Your task to perform on an android device: Show me productivity apps on the Play Store Image 0: 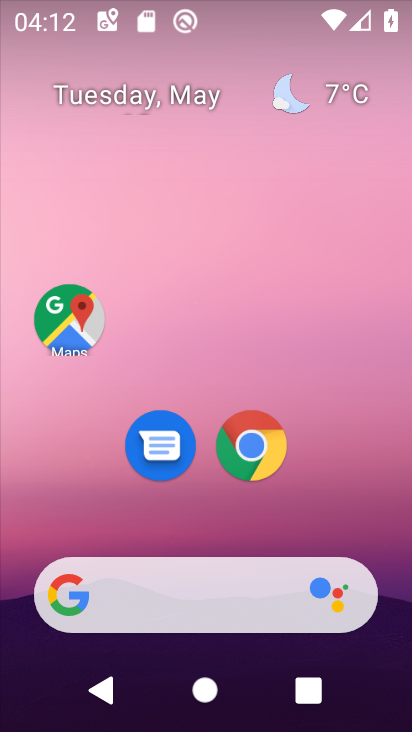
Step 0: drag from (212, 532) to (260, 31)
Your task to perform on an android device: Show me productivity apps on the Play Store Image 1: 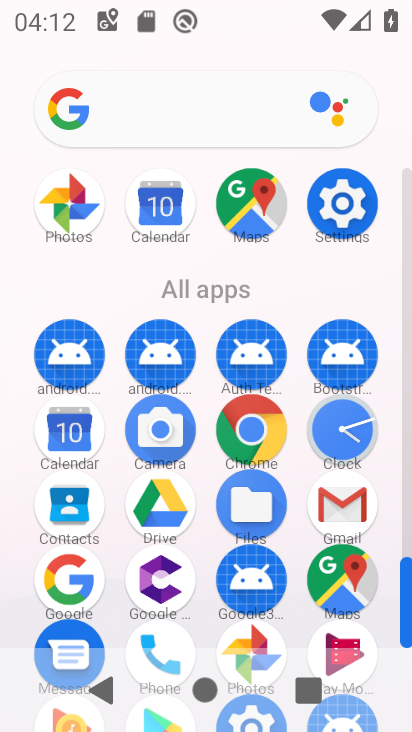
Step 1: drag from (205, 548) to (245, 204)
Your task to perform on an android device: Show me productivity apps on the Play Store Image 2: 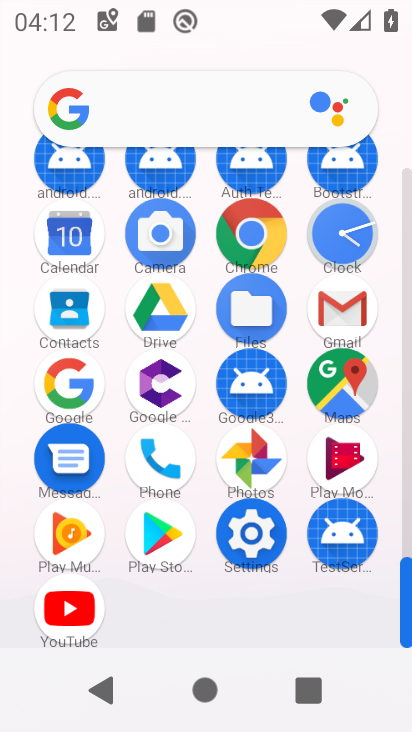
Step 2: click (168, 552)
Your task to perform on an android device: Show me productivity apps on the Play Store Image 3: 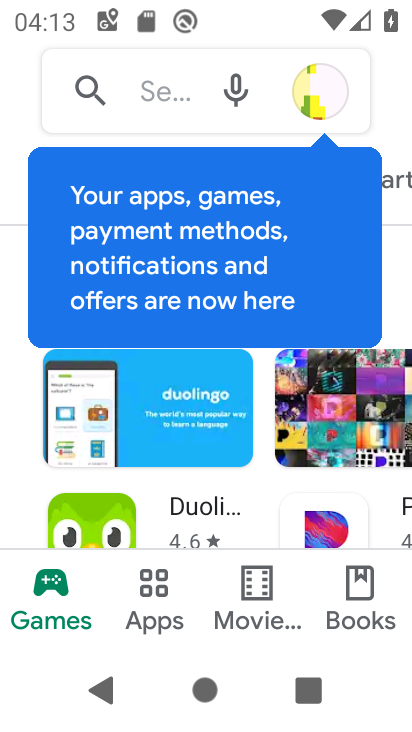
Step 3: click (171, 614)
Your task to perform on an android device: Show me productivity apps on the Play Store Image 4: 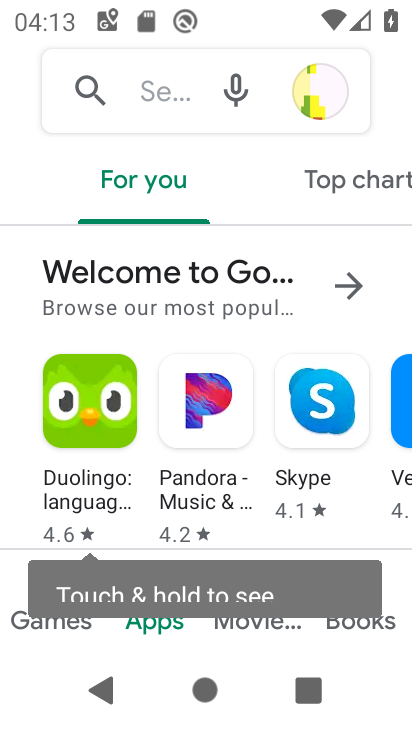
Step 4: drag from (355, 193) to (12, 167)
Your task to perform on an android device: Show me productivity apps on the Play Store Image 5: 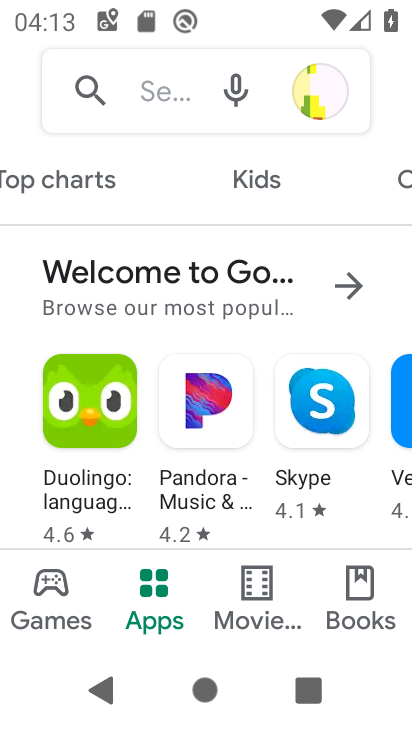
Step 5: drag from (348, 196) to (61, 170)
Your task to perform on an android device: Show me productivity apps on the Play Store Image 6: 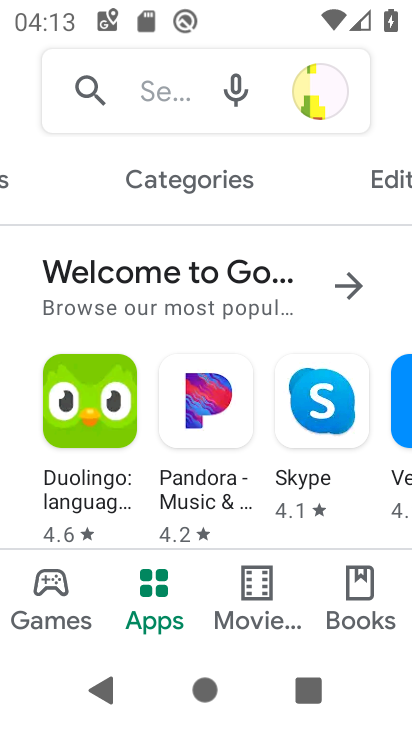
Step 6: click (195, 190)
Your task to perform on an android device: Show me productivity apps on the Play Store Image 7: 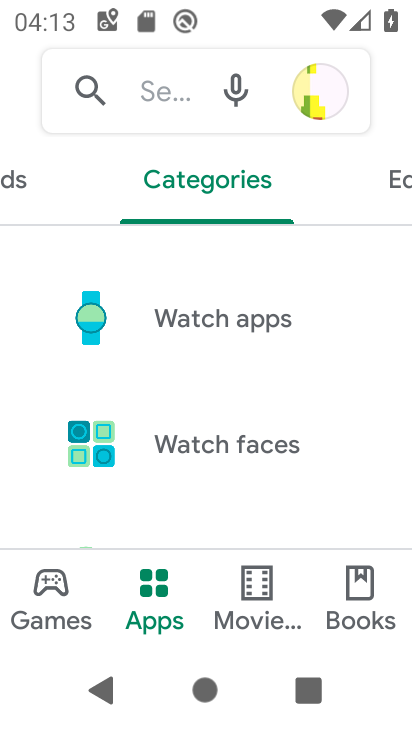
Step 7: drag from (203, 427) to (196, 107)
Your task to perform on an android device: Show me productivity apps on the Play Store Image 8: 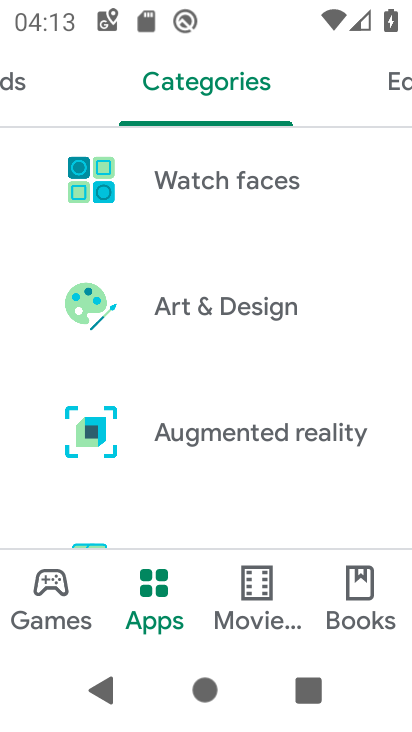
Step 8: drag from (193, 412) to (241, 88)
Your task to perform on an android device: Show me productivity apps on the Play Store Image 9: 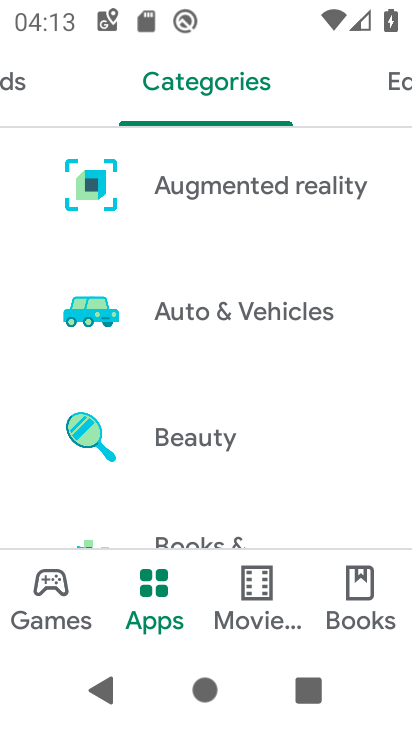
Step 9: drag from (230, 504) to (285, 9)
Your task to perform on an android device: Show me productivity apps on the Play Store Image 10: 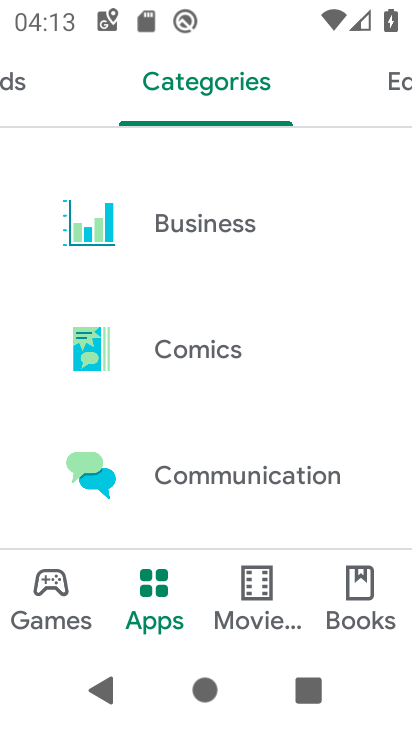
Step 10: drag from (261, 435) to (357, 14)
Your task to perform on an android device: Show me productivity apps on the Play Store Image 11: 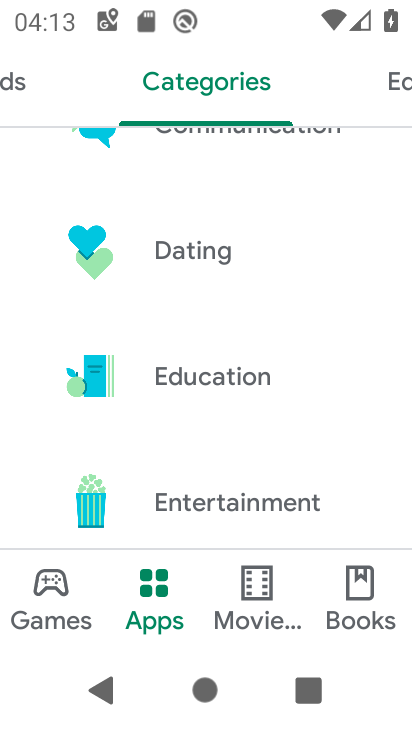
Step 11: drag from (252, 472) to (316, 24)
Your task to perform on an android device: Show me productivity apps on the Play Store Image 12: 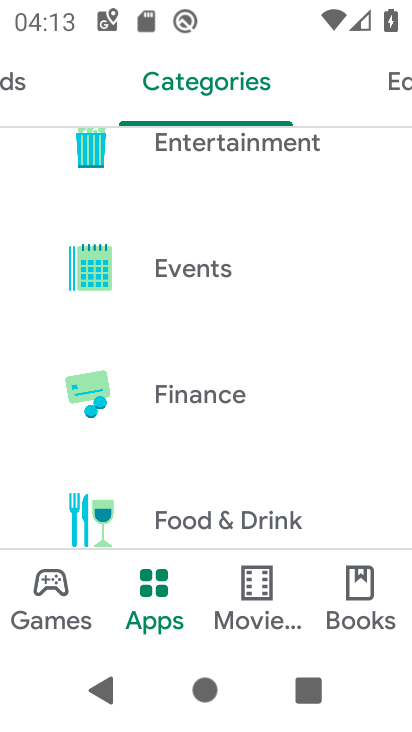
Step 12: drag from (258, 464) to (304, 27)
Your task to perform on an android device: Show me productivity apps on the Play Store Image 13: 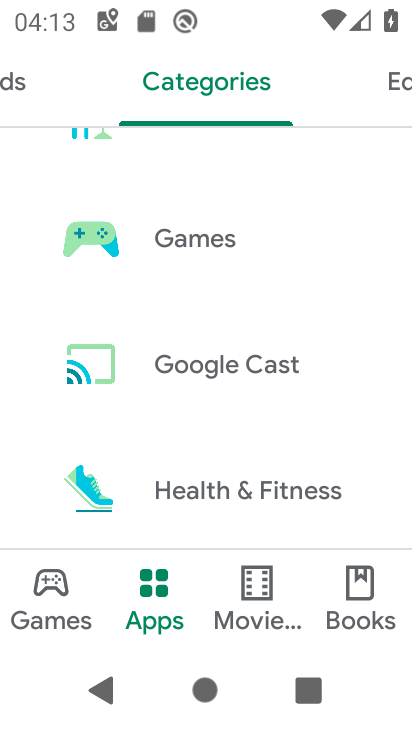
Step 13: drag from (267, 472) to (298, 121)
Your task to perform on an android device: Show me productivity apps on the Play Store Image 14: 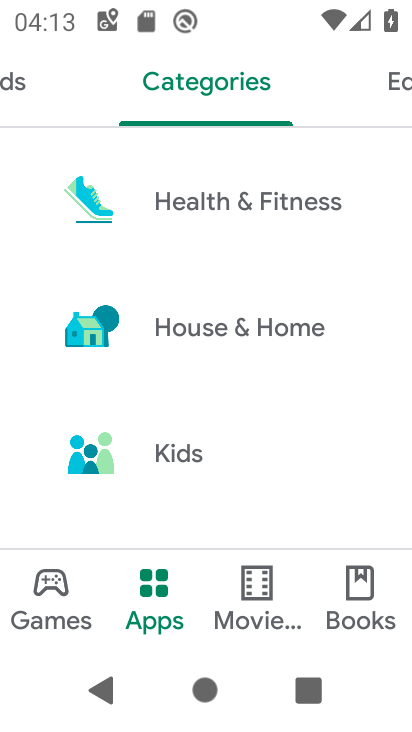
Step 14: drag from (217, 467) to (286, 70)
Your task to perform on an android device: Show me productivity apps on the Play Store Image 15: 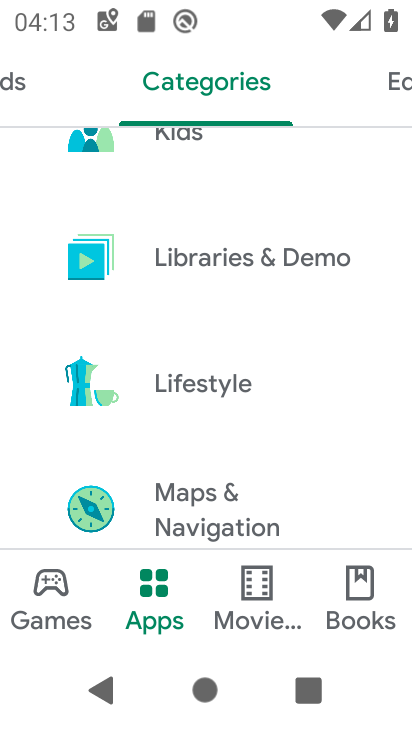
Step 15: drag from (227, 462) to (277, 65)
Your task to perform on an android device: Show me productivity apps on the Play Store Image 16: 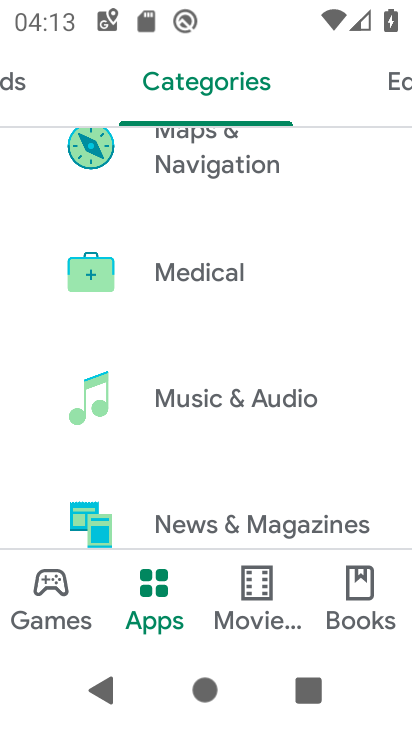
Step 16: drag from (227, 423) to (285, 13)
Your task to perform on an android device: Show me productivity apps on the Play Store Image 17: 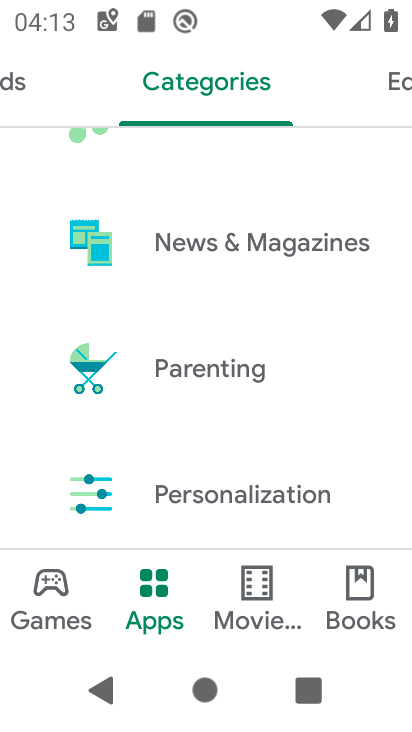
Step 17: drag from (219, 498) to (271, 48)
Your task to perform on an android device: Show me productivity apps on the Play Store Image 18: 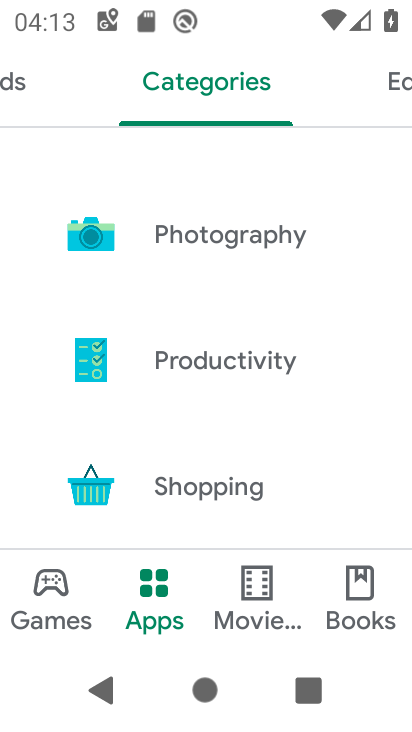
Step 18: click (231, 378)
Your task to perform on an android device: Show me productivity apps on the Play Store Image 19: 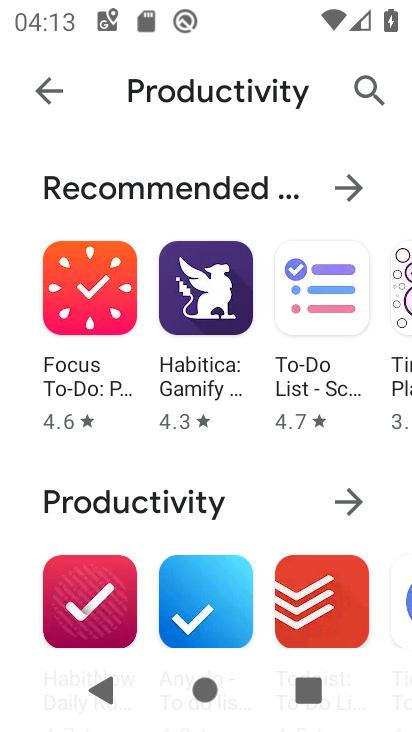
Step 19: task complete